Your task to perform on an android device: toggle wifi Image 0: 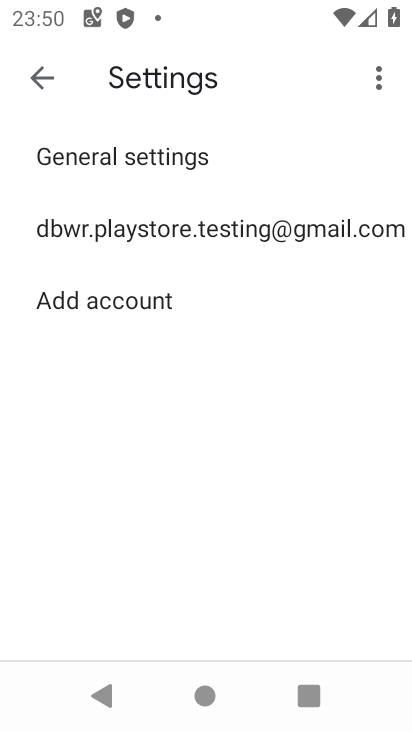
Step 0: drag from (183, 21) to (171, 542)
Your task to perform on an android device: toggle wifi Image 1: 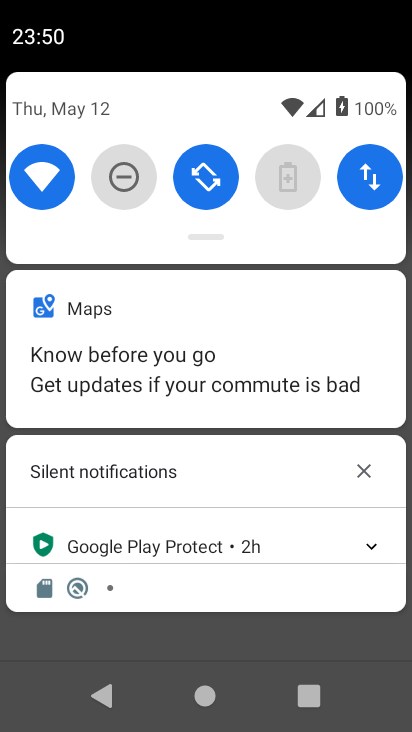
Step 1: click (53, 170)
Your task to perform on an android device: toggle wifi Image 2: 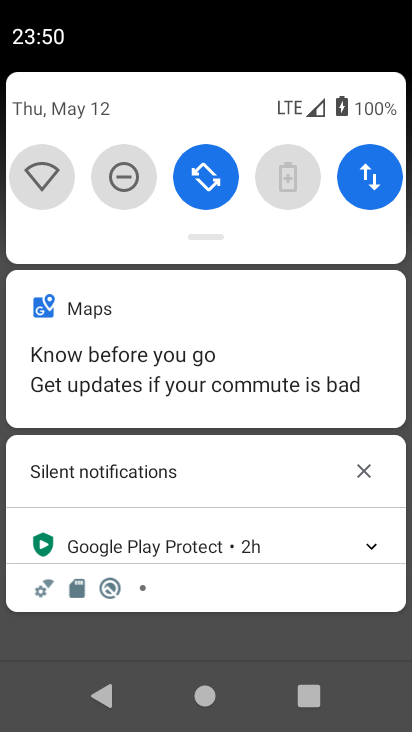
Step 2: click (53, 170)
Your task to perform on an android device: toggle wifi Image 3: 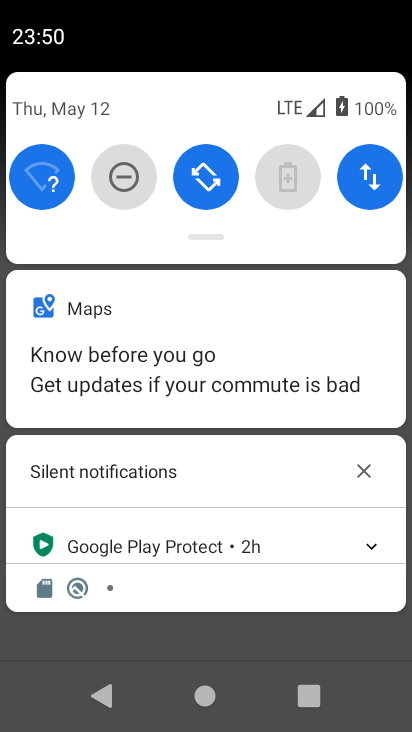
Step 3: click (53, 170)
Your task to perform on an android device: toggle wifi Image 4: 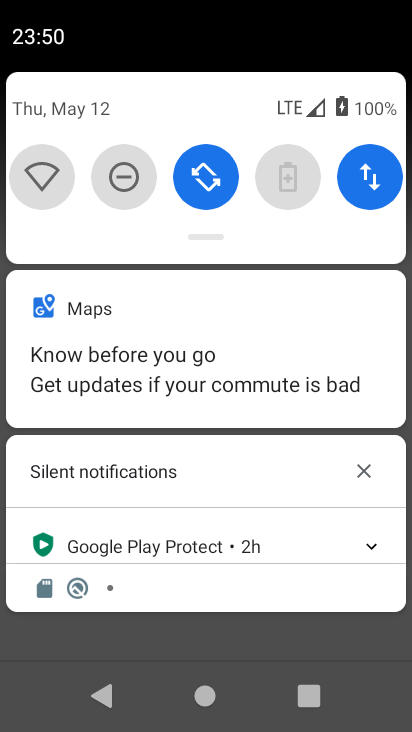
Step 4: click (53, 170)
Your task to perform on an android device: toggle wifi Image 5: 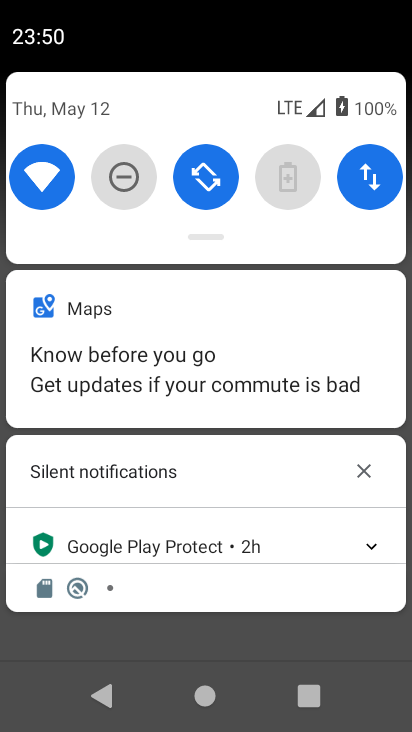
Step 5: task complete